Your task to perform on an android device: Open the phone app and click the voicemail tab. Image 0: 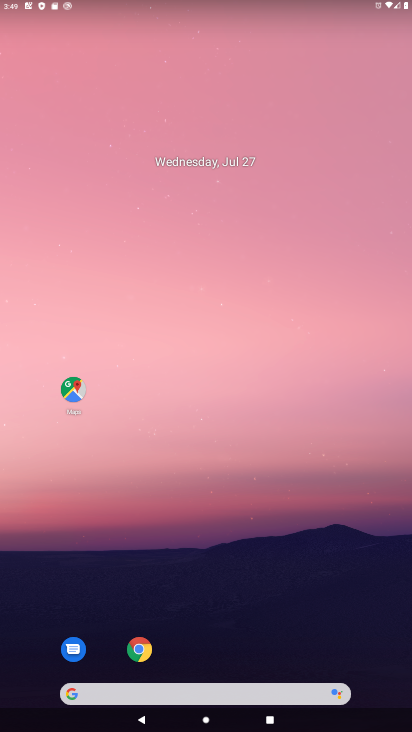
Step 0: press home button
Your task to perform on an android device: Open the phone app and click the voicemail tab. Image 1: 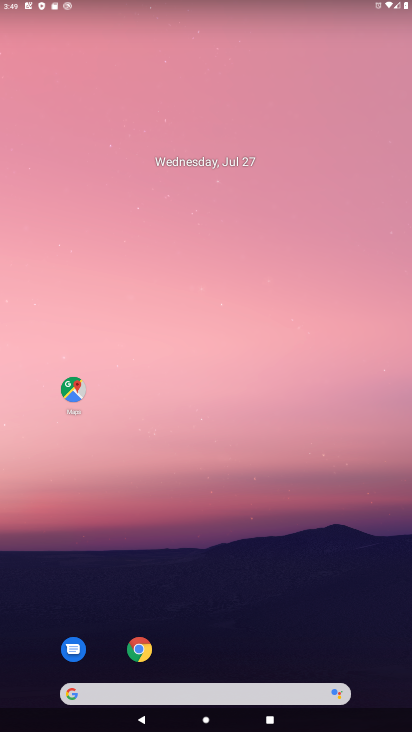
Step 1: drag from (373, 643) to (341, 159)
Your task to perform on an android device: Open the phone app and click the voicemail tab. Image 2: 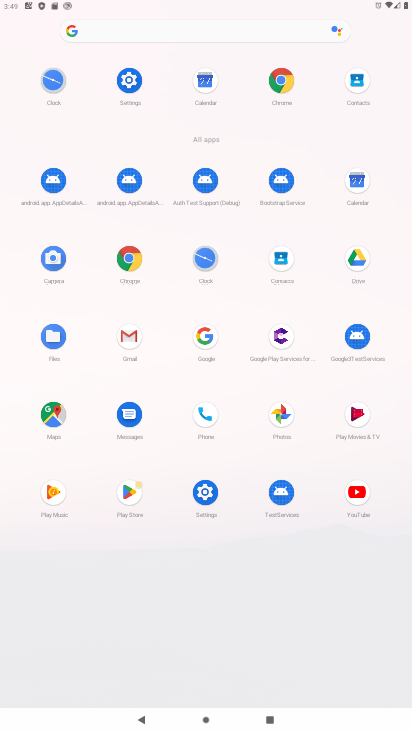
Step 2: click (201, 415)
Your task to perform on an android device: Open the phone app and click the voicemail tab. Image 3: 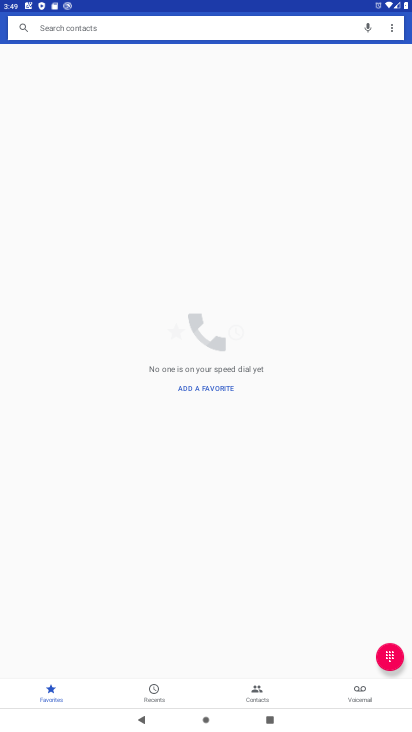
Step 3: click (363, 694)
Your task to perform on an android device: Open the phone app and click the voicemail tab. Image 4: 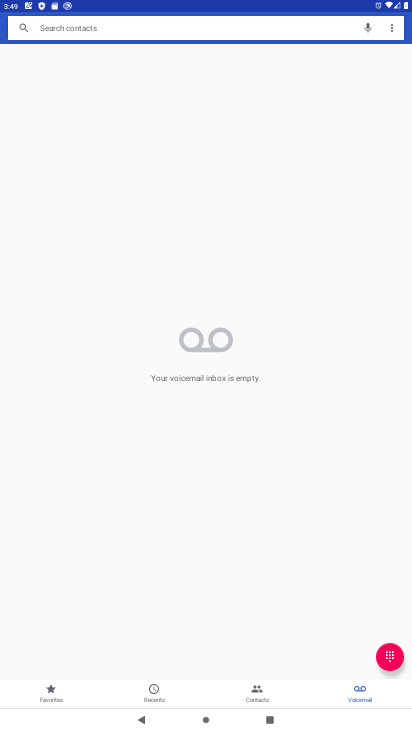
Step 4: task complete